Your task to perform on an android device: check battery use Image 0: 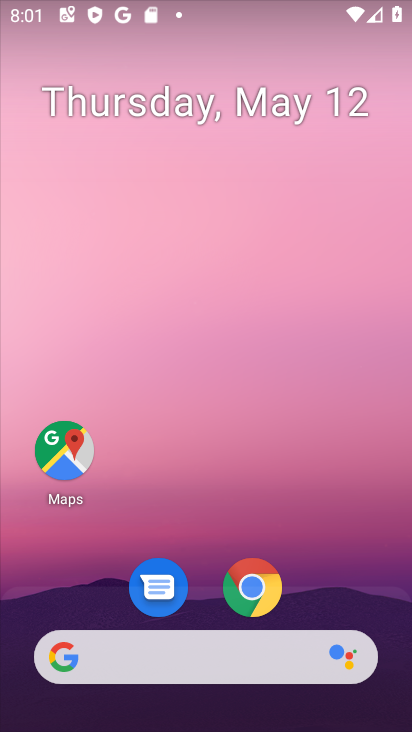
Step 0: drag from (177, 662) to (151, 205)
Your task to perform on an android device: check battery use Image 1: 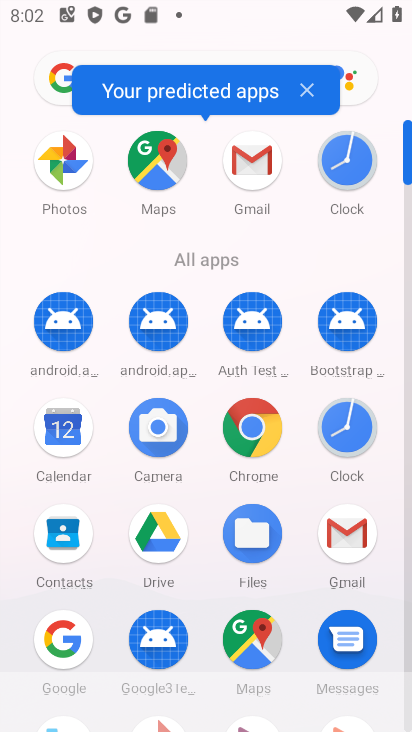
Step 1: drag from (206, 515) to (135, 12)
Your task to perform on an android device: check battery use Image 2: 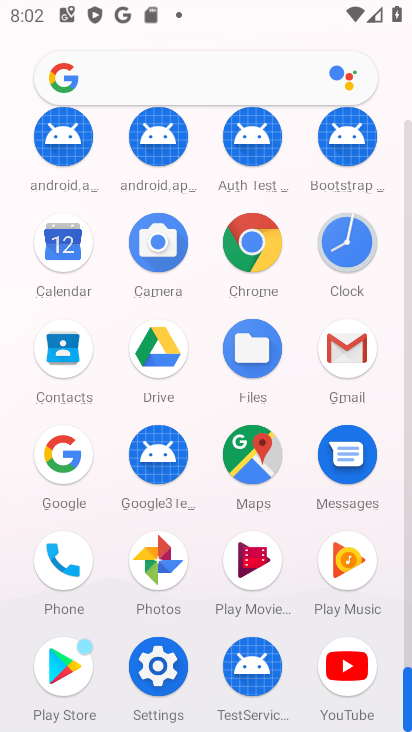
Step 2: click (165, 665)
Your task to perform on an android device: check battery use Image 3: 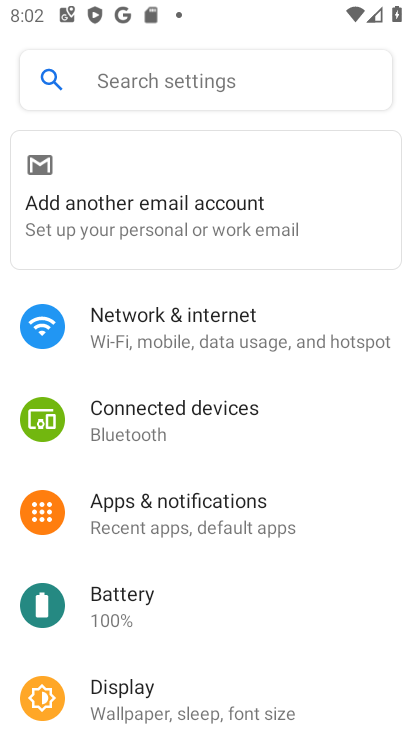
Step 3: click (122, 623)
Your task to perform on an android device: check battery use Image 4: 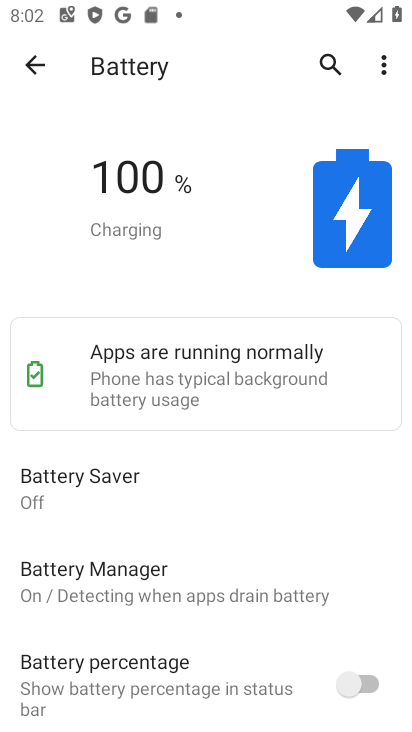
Step 4: click (387, 60)
Your task to perform on an android device: check battery use Image 5: 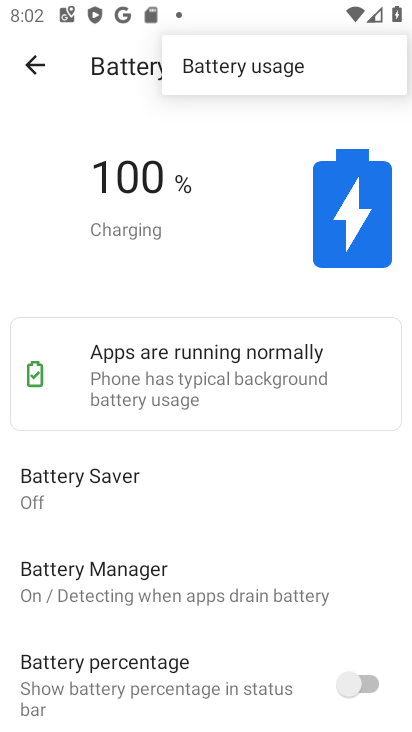
Step 5: click (311, 68)
Your task to perform on an android device: check battery use Image 6: 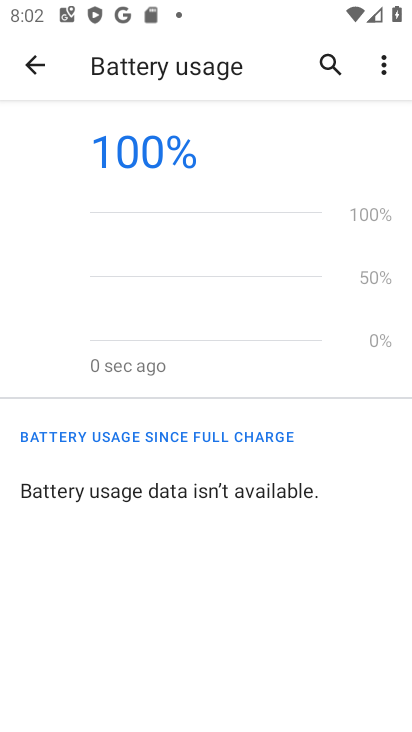
Step 6: task complete